Your task to perform on an android device: allow cookies in the chrome app Image 0: 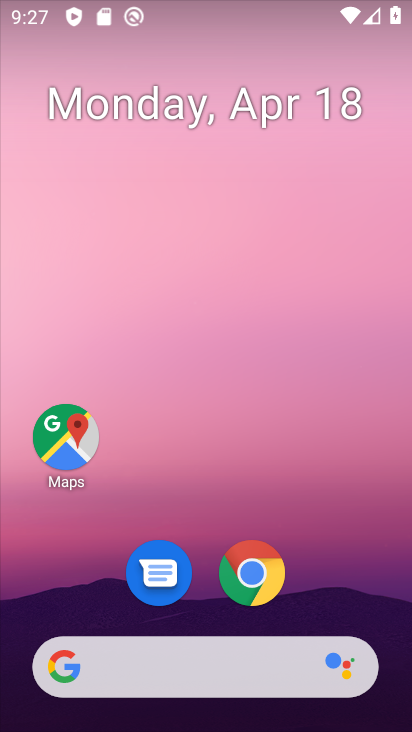
Step 0: drag from (353, 585) to (245, 34)
Your task to perform on an android device: allow cookies in the chrome app Image 1: 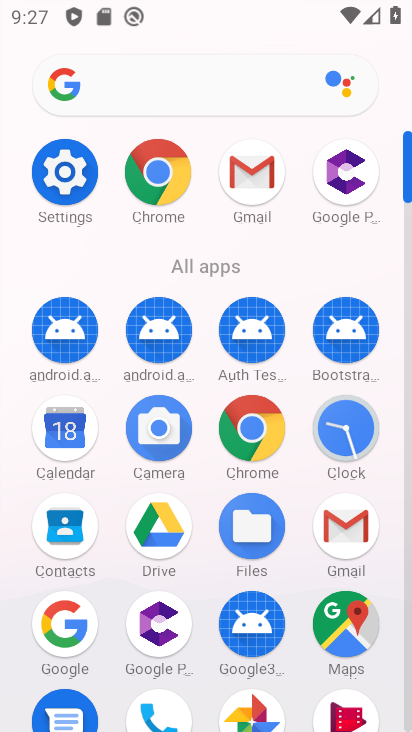
Step 1: click (272, 434)
Your task to perform on an android device: allow cookies in the chrome app Image 2: 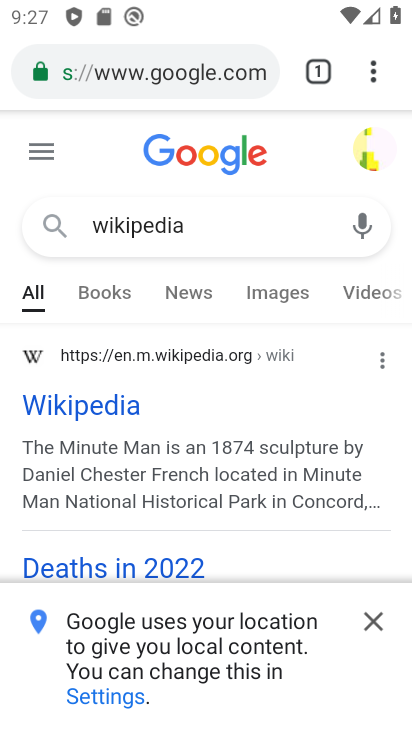
Step 2: press back button
Your task to perform on an android device: allow cookies in the chrome app Image 3: 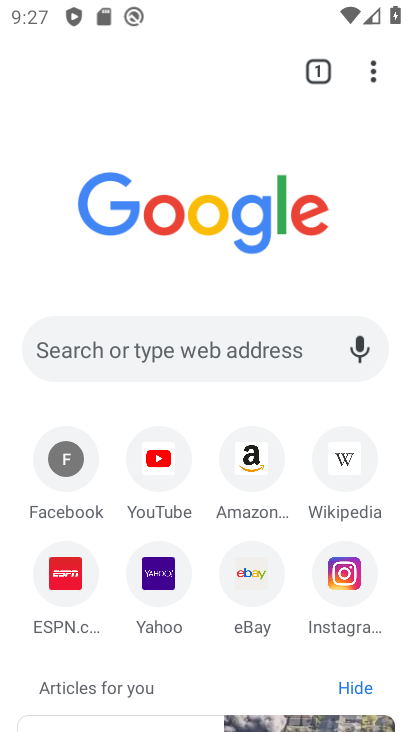
Step 3: click (374, 60)
Your task to perform on an android device: allow cookies in the chrome app Image 4: 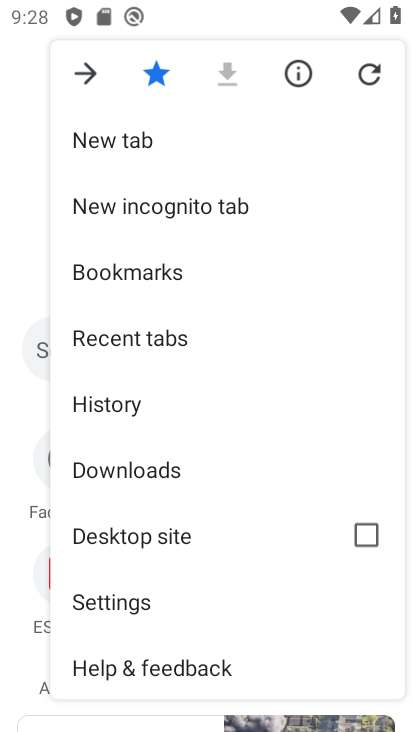
Step 4: click (118, 410)
Your task to perform on an android device: allow cookies in the chrome app Image 5: 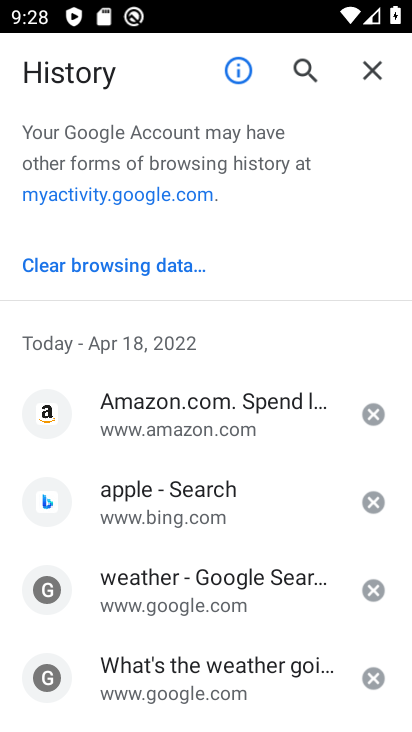
Step 5: click (150, 279)
Your task to perform on an android device: allow cookies in the chrome app Image 6: 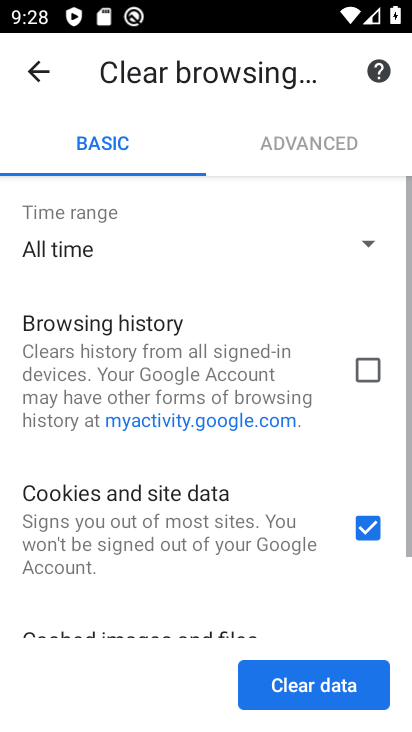
Step 6: click (297, 139)
Your task to perform on an android device: allow cookies in the chrome app Image 7: 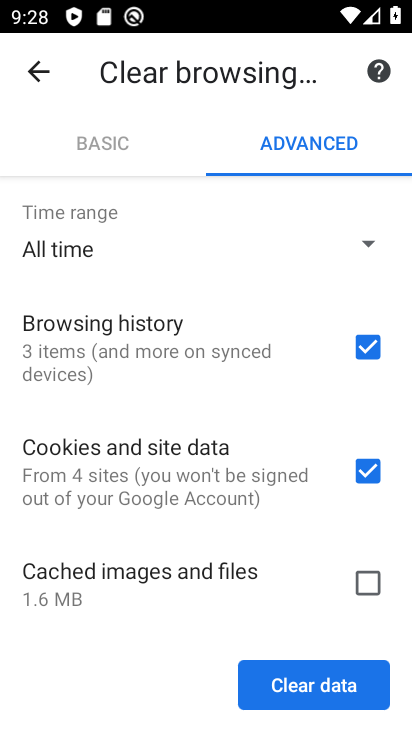
Step 7: task complete